Your task to perform on an android device: Check the weather Image 0: 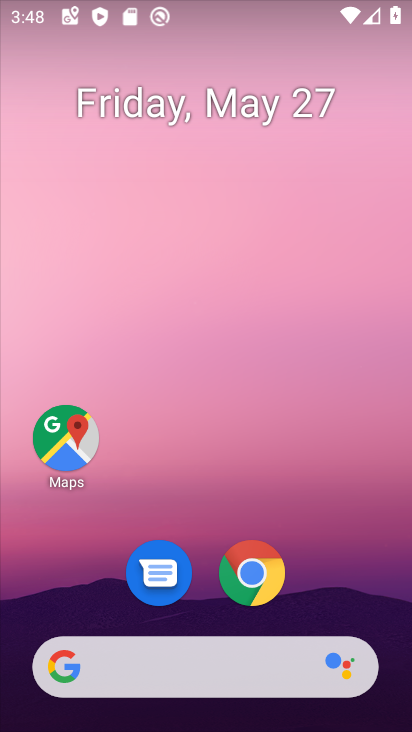
Step 0: click (177, 670)
Your task to perform on an android device: Check the weather Image 1: 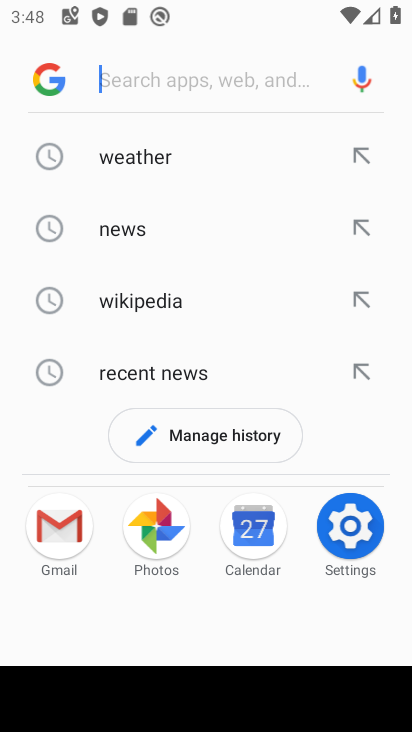
Step 1: click (137, 162)
Your task to perform on an android device: Check the weather Image 2: 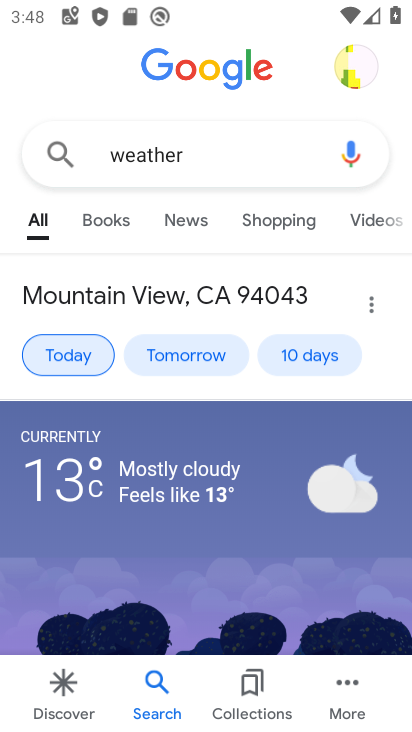
Step 2: click (75, 357)
Your task to perform on an android device: Check the weather Image 3: 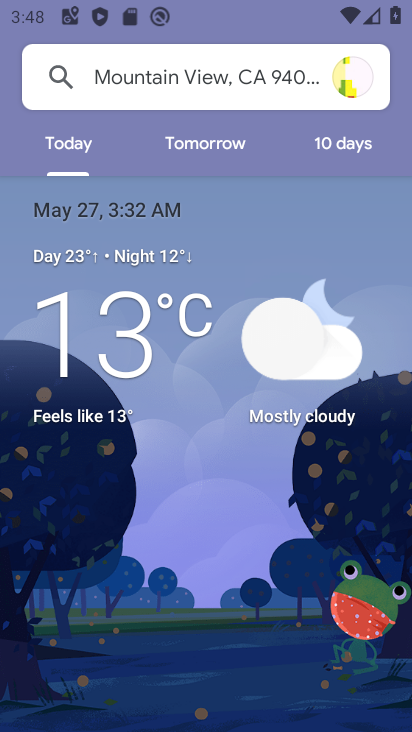
Step 3: task complete